Your task to perform on an android device: toggle notification dots Image 0: 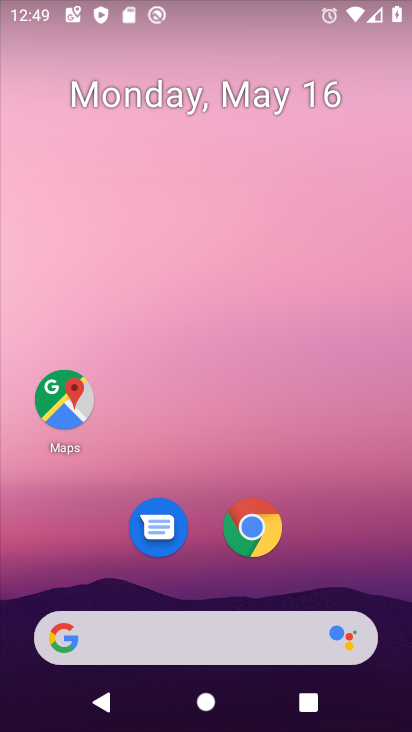
Step 0: drag from (342, 546) to (293, 2)
Your task to perform on an android device: toggle notification dots Image 1: 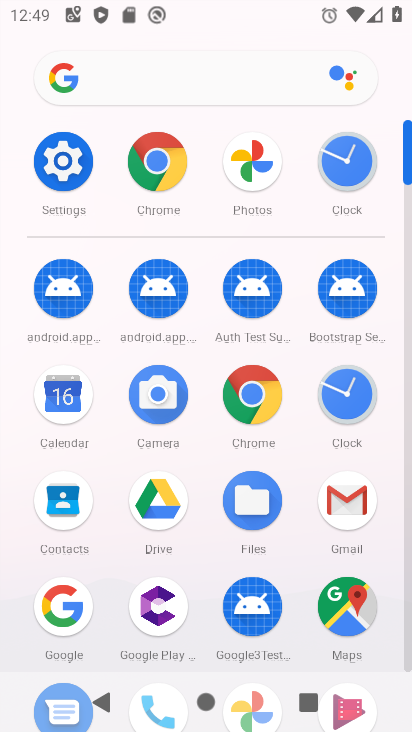
Step 1: click (77, 185)
Your task to perform on an android device: toggle notification dots Image 2: 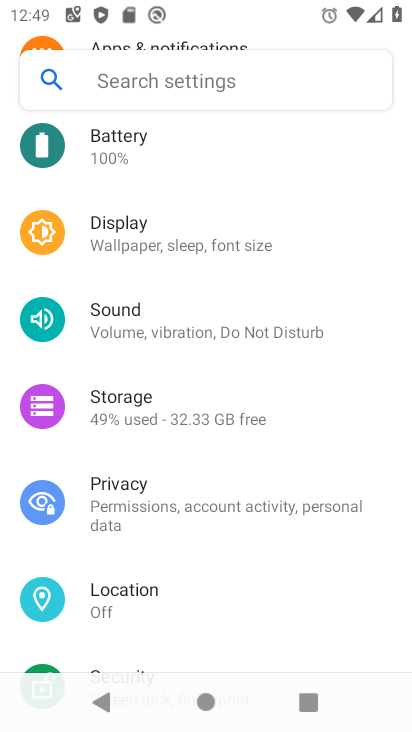
Step 2: drag from (198, 148) to (192, 332)
Your task to perform on an android device: toggle notification dots Image 3: 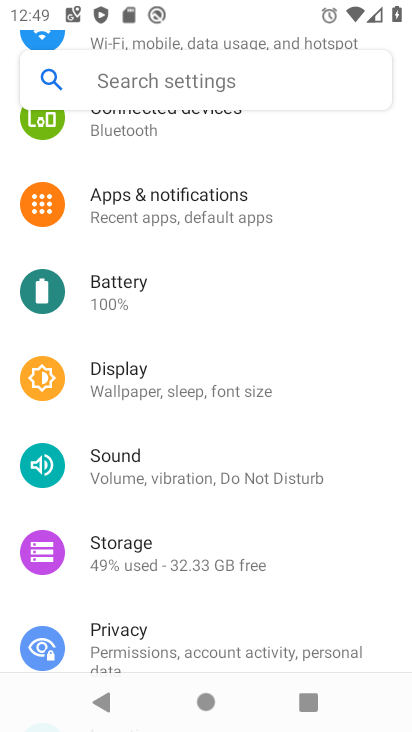
Step 3: click (259, 210)
Your task to perform on an android device: toggle notification dots Image 4: 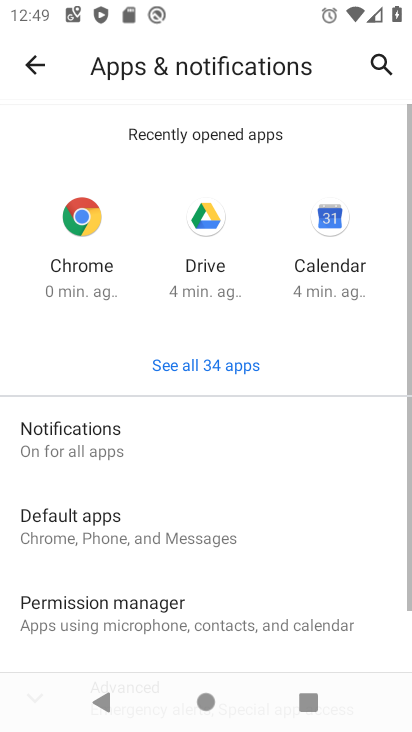
Step 4: click (112, 448)
Your task to perform on an android device: toggle notification dots Image 5: 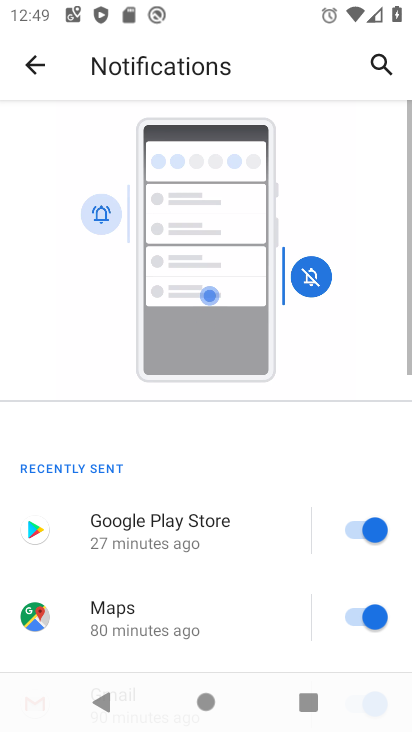
Step 5: drag from (184, 468) to (227, 174)
Your task to perform on an android device: toggle notification dots Image 6: 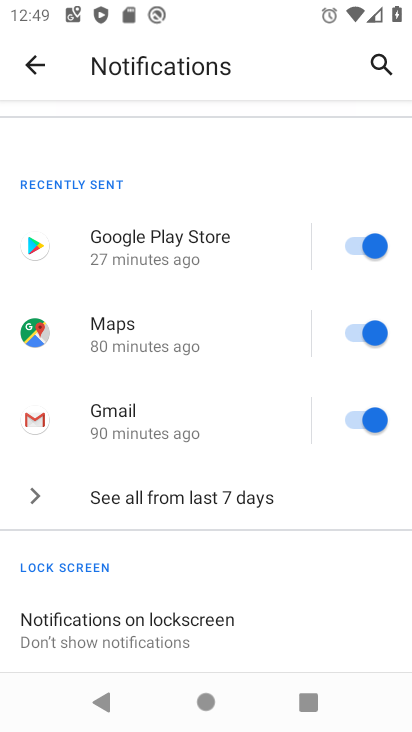
Step 6: drag from (170, 609) to (196, 473)
Your task to perform on an android device: toggle notification dots Image 7: 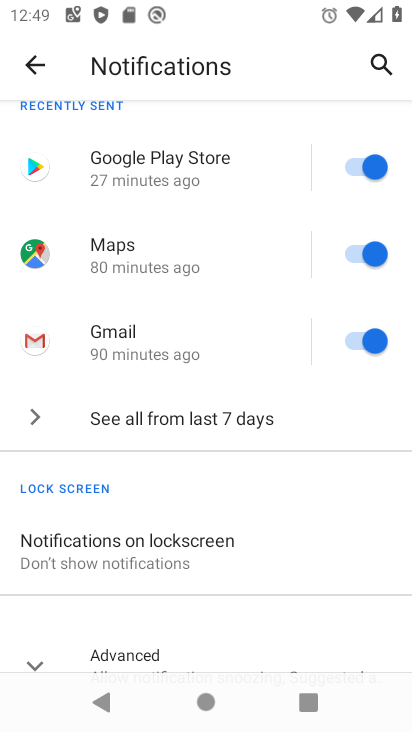
Step 7: click (147, 617)
Your task to perform on an android device: toggle notification dots Image 8: 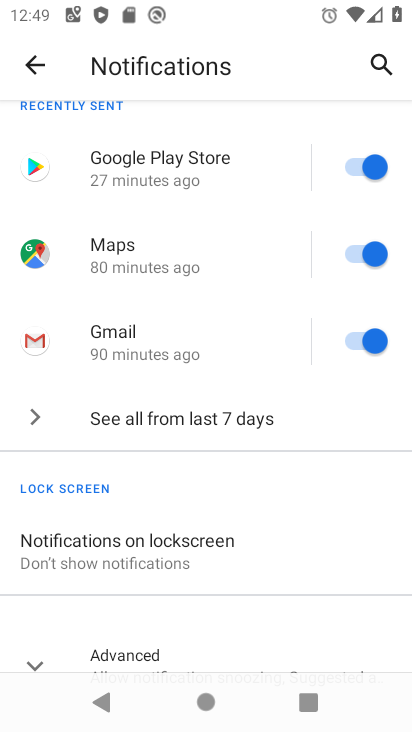
Step 8: drag from (247, 614) to (273, 321)
Your task to perform on an android device: toggle notification dots Image 9: 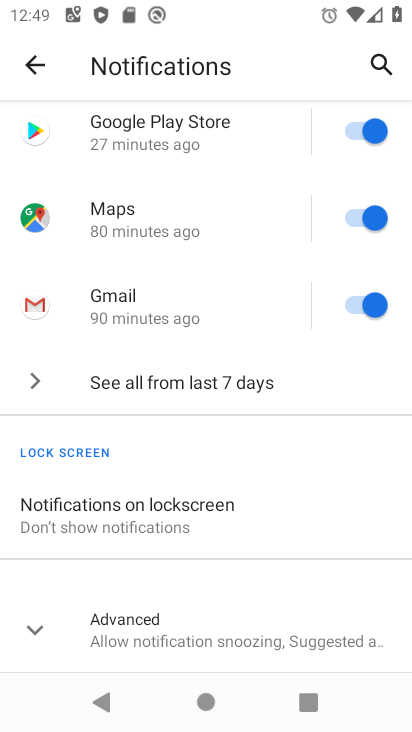
Step 9: click (164, 598)
Your task to perform on an android device: toggle notification dots Image 10: 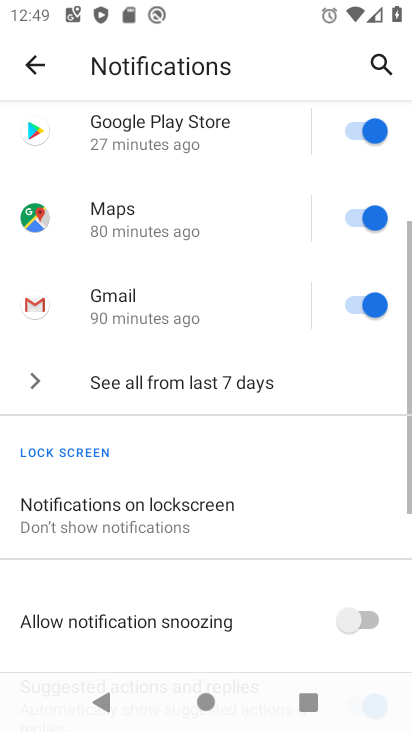
Step 10: drag from (258, 570) to (271, 336)
Your task to perform on an android device: toggle notification dots Image 11: 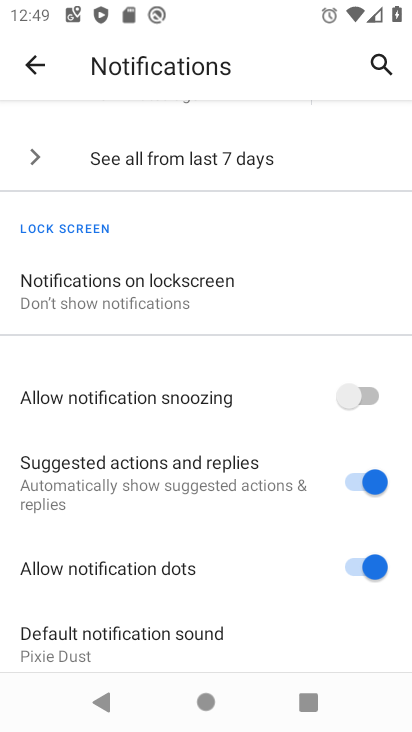
Step 11: click (339, 566)
Your task to perform on an android device: toggle notification dots Image 12: 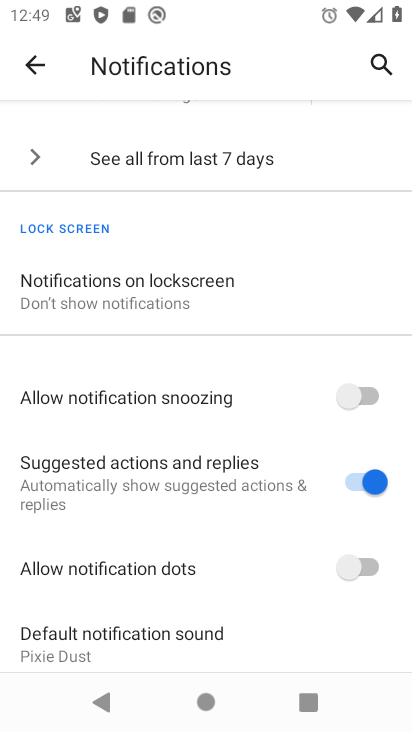
Step 12: task complete